Your task to perform on an android device: Go to sound settings Image 0: 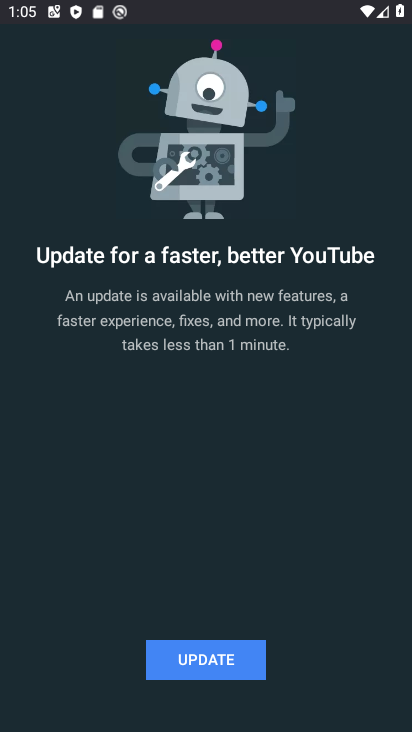
Step 0: press home button
Your task to perform on an android device: Go to sound settings Image 1: 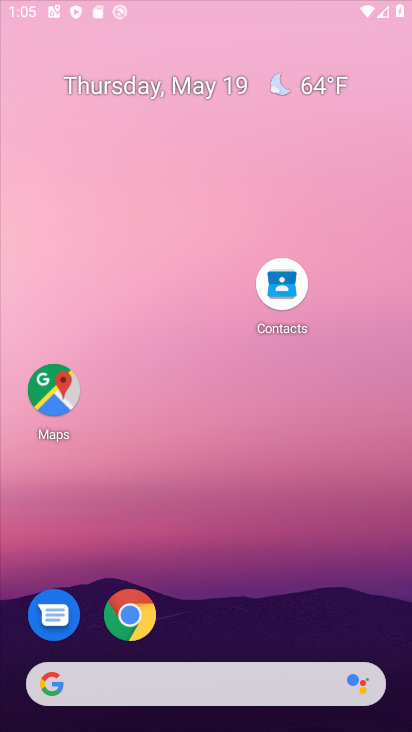
Step 1: drag from (246, 582) to (212, 129)
Your task to perform on an android device: Go to sound settings Image 2: 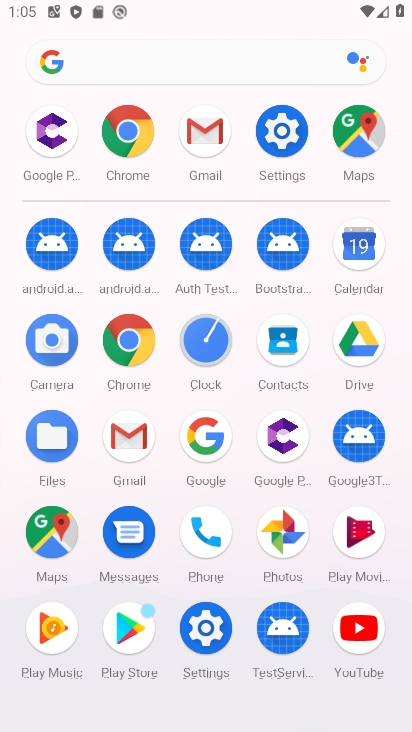
Step 2: click (290, 123)
Your task to perform on an android device: Go to sound settings Image 3: 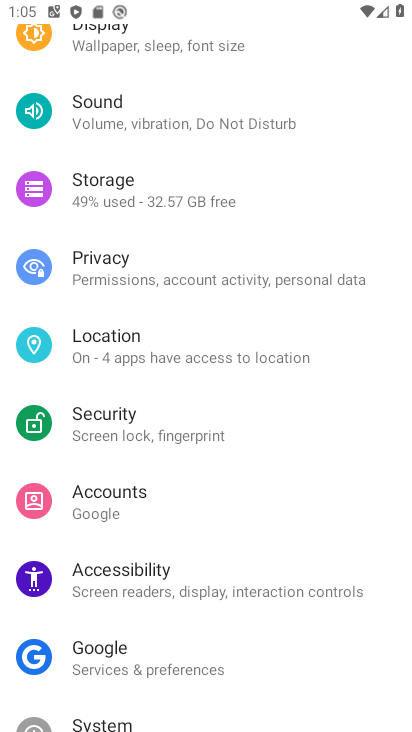
Step 3: drag from (139, 532) to (128, 690)
Your task to perform on an android device: Go to sound settings Image 4: 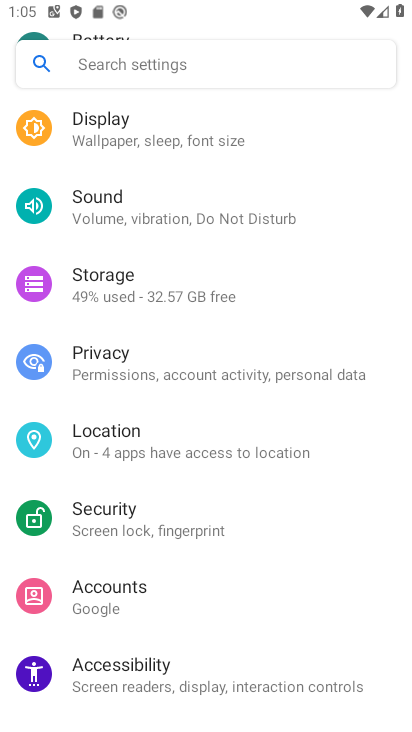
Step 4: click (175, 206)
Your task to perform on an android device: Go to sound settings Image 5: 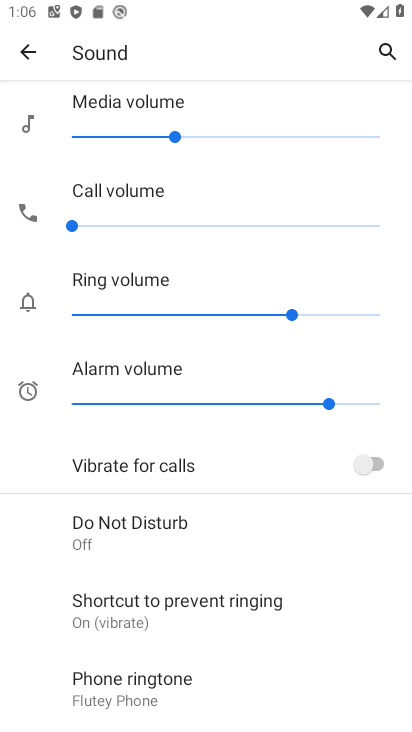
Step 5: task complete